Your task to perform on an android device: Open the Play Movies app and select the watchlist tab. Image 0: 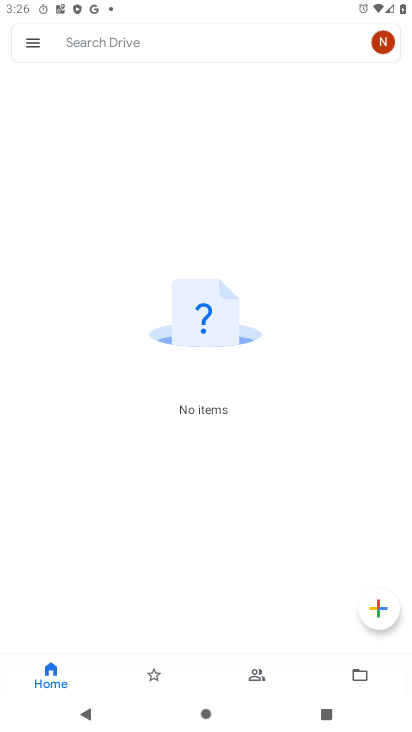
Step 0: press home button
Your task to perform on an android device: Open the Play Movies app and select the watchlist tab. Image 1: 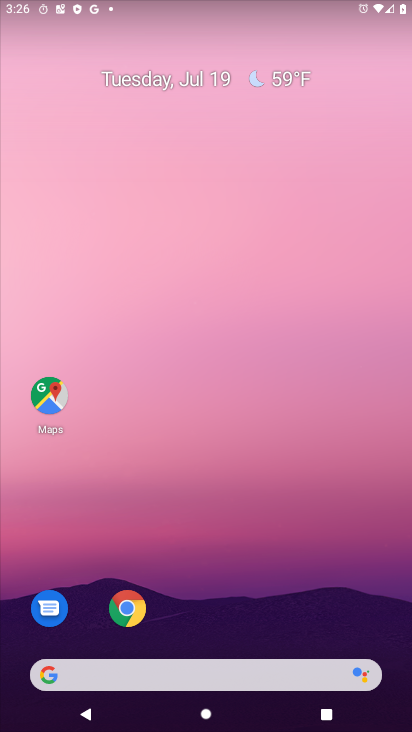
Step 1: drag from (345, 625) to (263, 212)
Your task to perform on an android device: Open the Play Movies app and select the watchlist tab. Image 2: 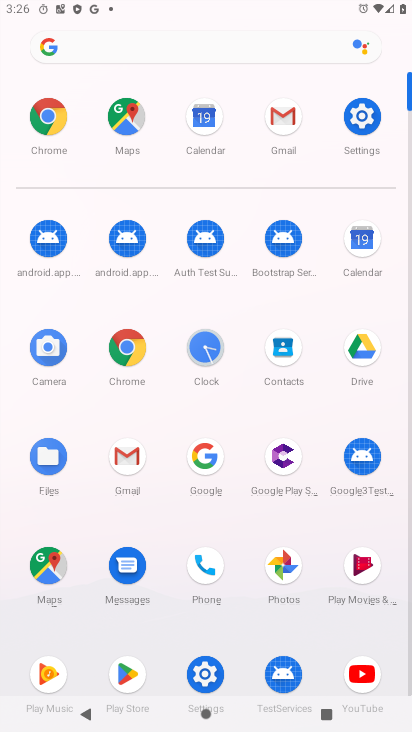
Step 2: click (366, 575)
Your task to perform on an android device: Open the Play Movies app and select the watchlist tab. Image 3: 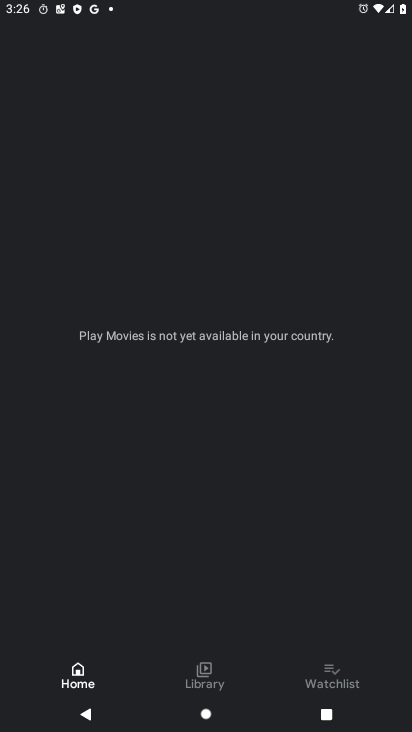
Step 3: click (335, 675)
Your task to perform on an android device: Open the Play Movies app and select the watchlist tab. Image 4: 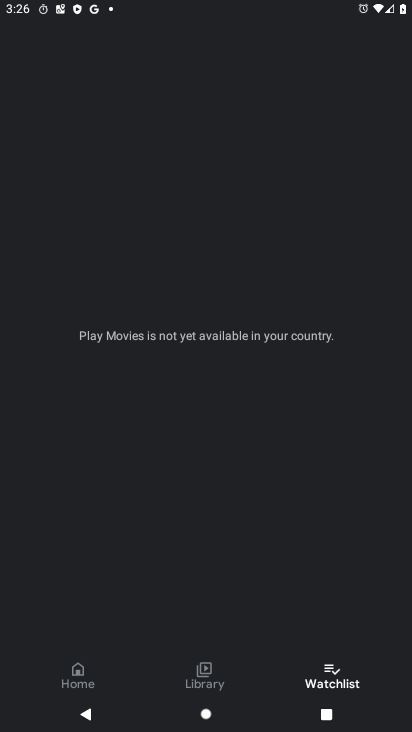
Step 4: task complete